Your task to perform on an android device: find which apps use the phone's location Image 0: 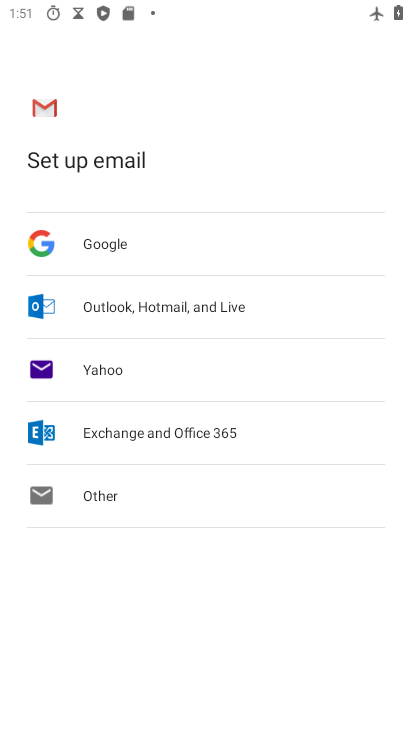
Step 0: press home button
Your task to perform on an android device: find which apps use the phone's location Image 1: 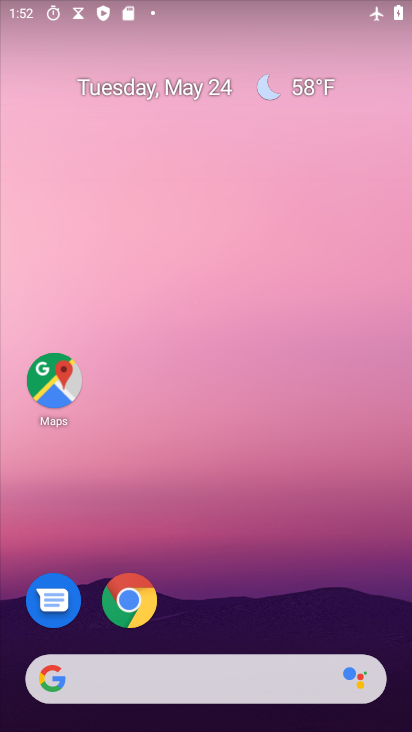
Step 1: drag from (284, 547) to (190, 3)
Your task to perform on an android device: find which apps use the phone's location Image 2: 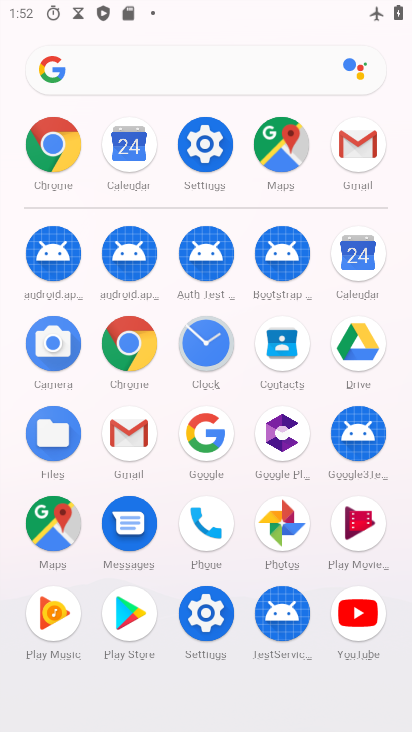
Step 2: click (206, 144)
Your task to perform on an android device: find which apps use the phone's location Image 3: 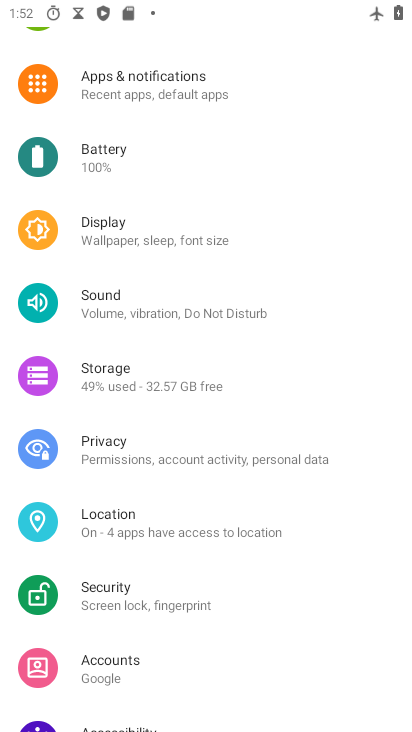
Step 3: click (201, 521)
Your task to perform on an android device: find which apps use the phone's location Image 4: 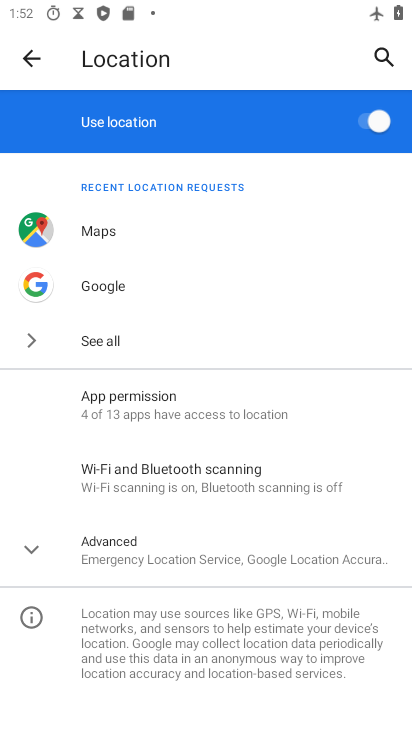
Step 4: click (226, 407)
Your task to perform on an android device: find which apps use the phone's location Image 5: 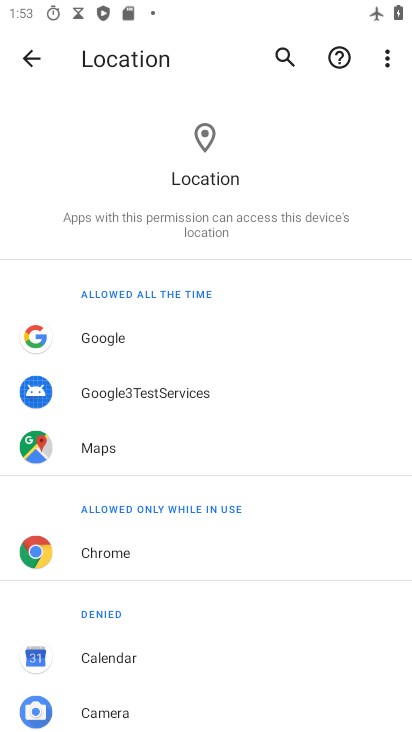
Step 5: task complete